Your task to perform on an android device: Turn on the flashlight Image 0: 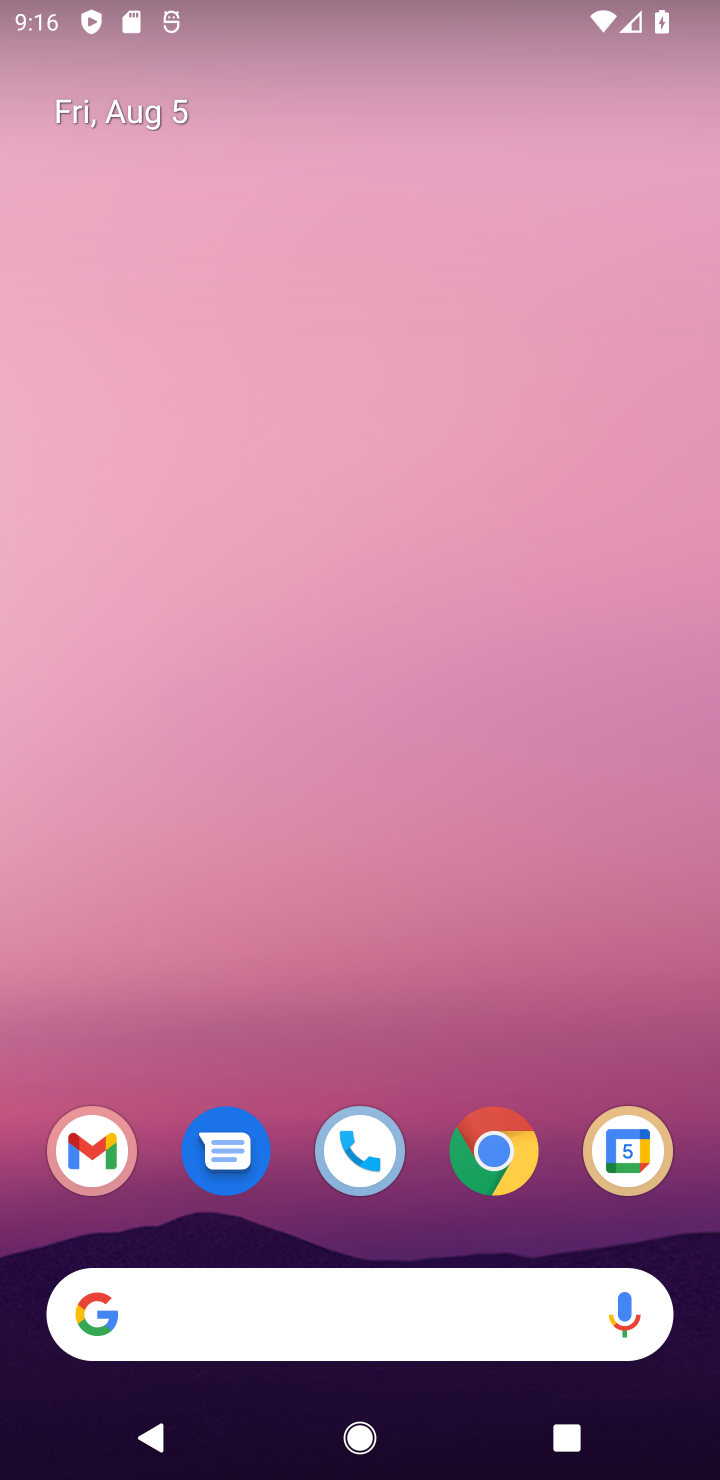
Step 0: drag from (344, 1230) to (536, 43)
Your task to perform on an android device: Turn on the flashlight Image 1: 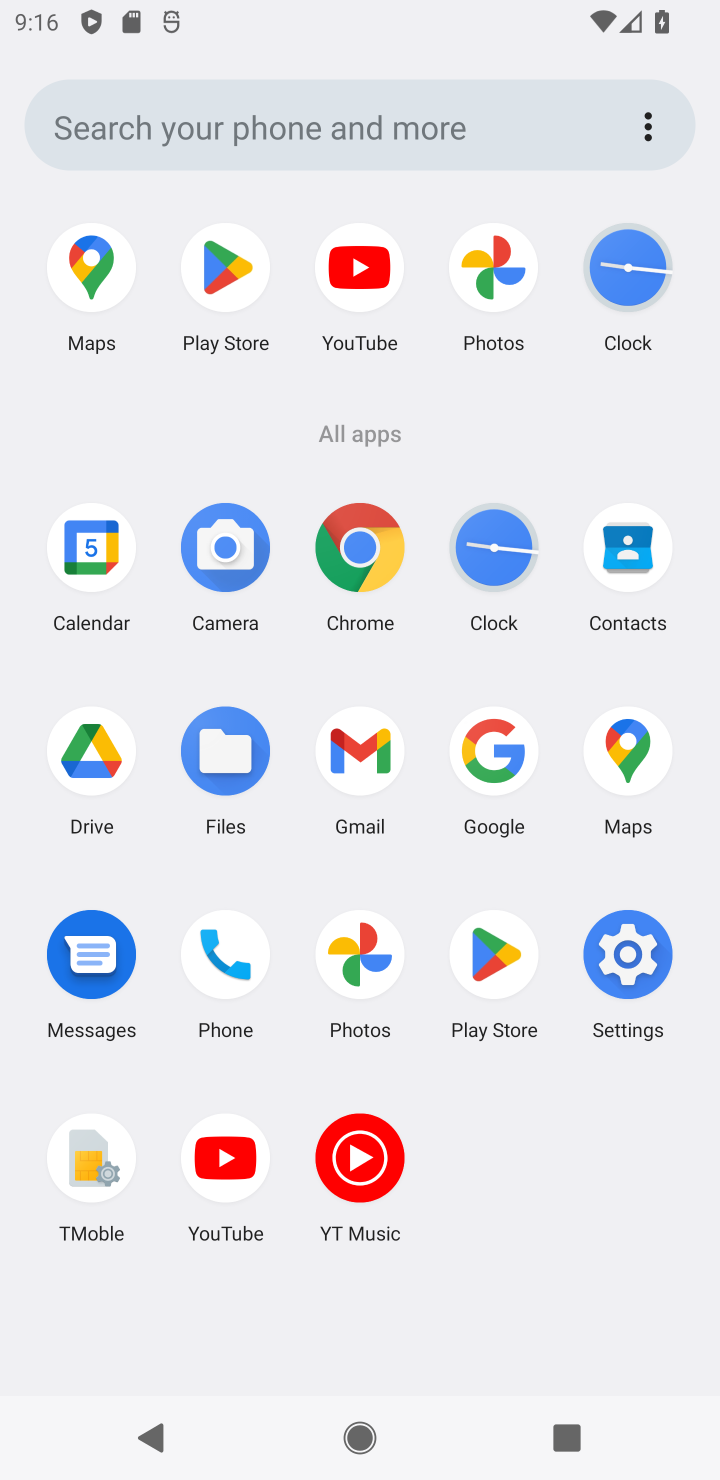
Step 1: task complete